Your task to perform on an android device: When is my next meeting? Image 0: 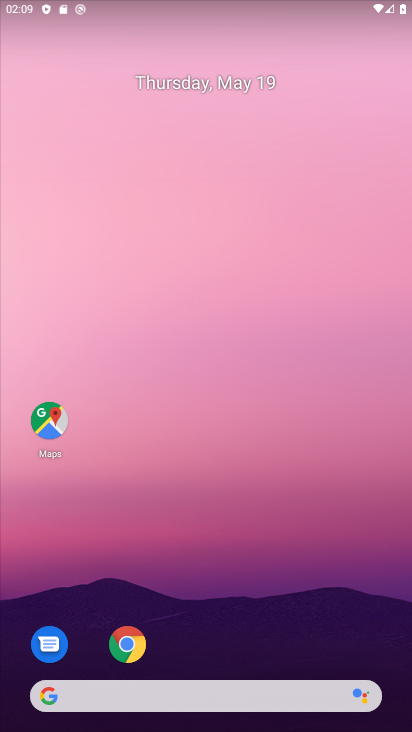
Step 0: drag from (267, 600) to (266, 135)
Your task to perform on an android device: When is my next meeting? Image 1: 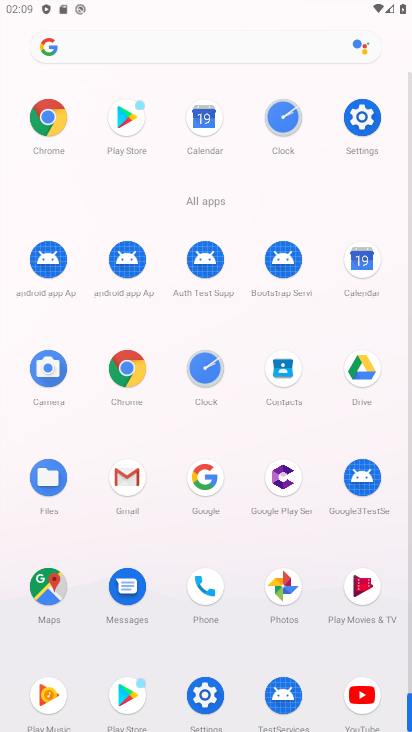
Step 1: click (366, 252)
Your task to perform on an android device: When is my next meeting? Image 2: 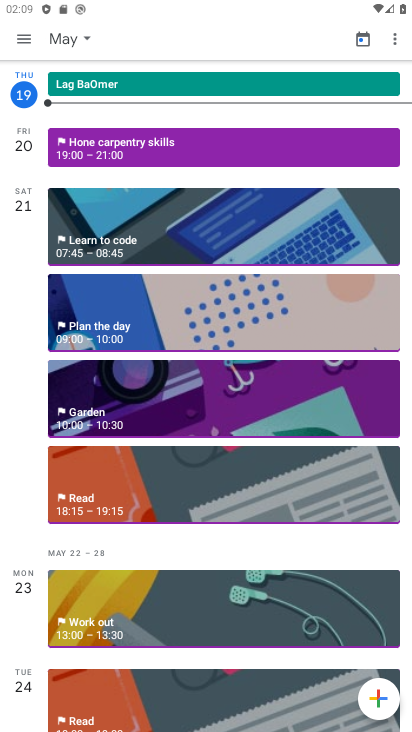
Step 2: task complete